Your task to perform on an android device: find which apps use the phone's location Image 0: 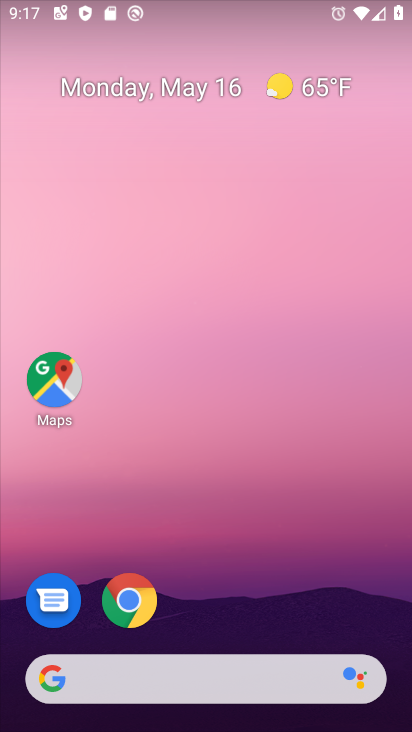
Step 0: drag from (212, 626) to (276, 214)
Your task to perform on an android device: find which apps use the phone's location Image 1: 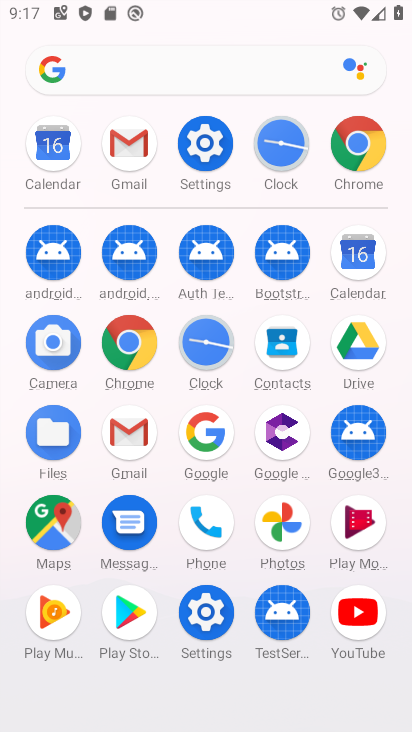
Step 1: click (218, 155)
Your task to perform on an android device: find which apps use the phone's location Image 2: 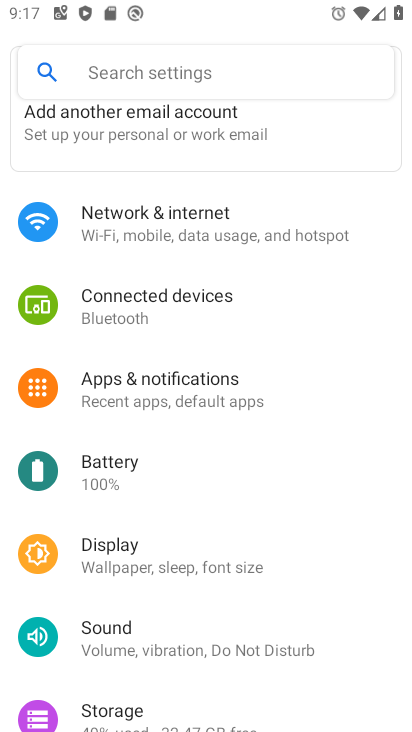
Step 2: click (157, 407)
Your task to perform on an android device: find which apps use the phone's location Image 3: 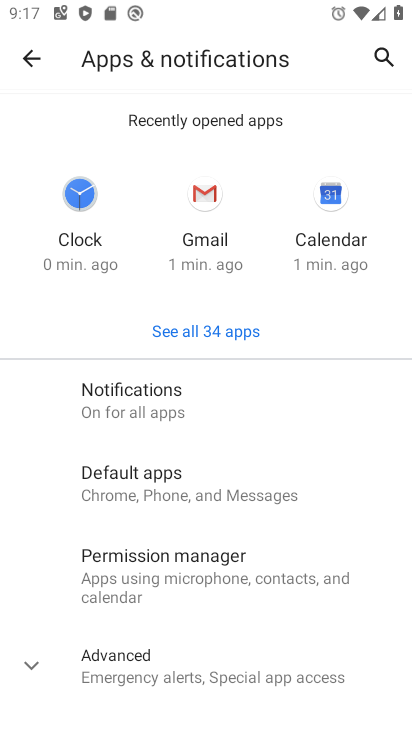
Step 3: click (171, 405)
Your task to perform on an android device: find which apps use the phone's location Image 4: 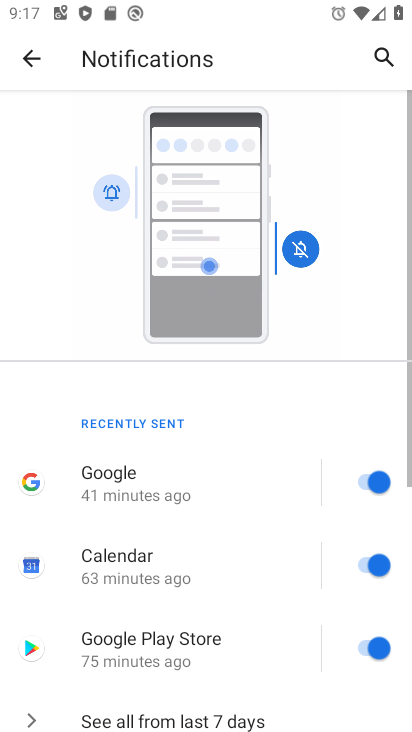
Step 4: drag from (201, 679) to (254, 283)
Your task to perform on an android device: find which apps use the phone's location Image 5: 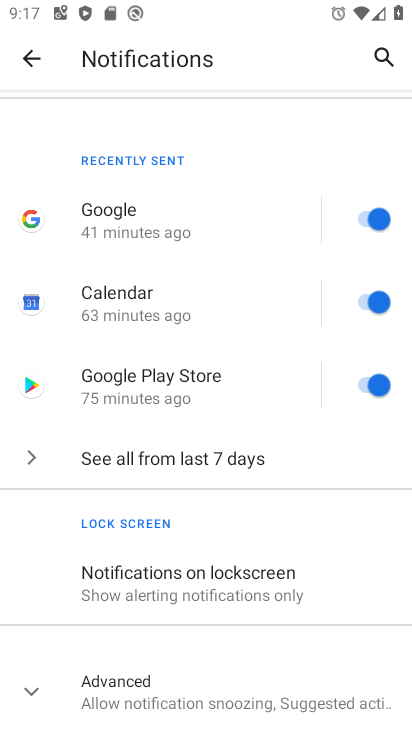
Step 5: click (37, 48)
Your task to perform on an android device: find which apps use the phone's location Image 6: 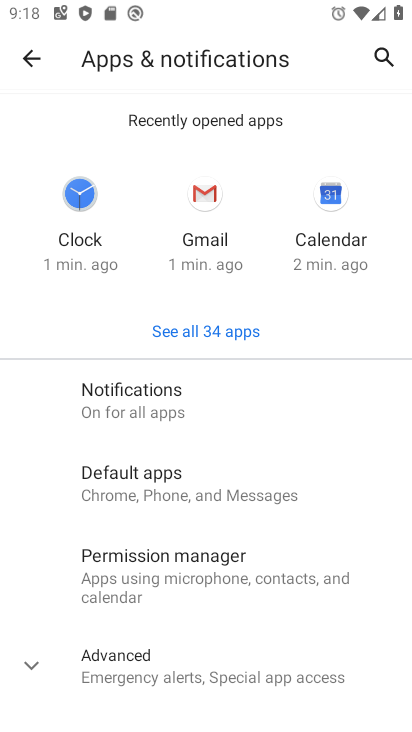
Step 6: drag from (303, 534) to (296, 191)
Your task to perform on an android device: find which apps use the phone's location Image 7: 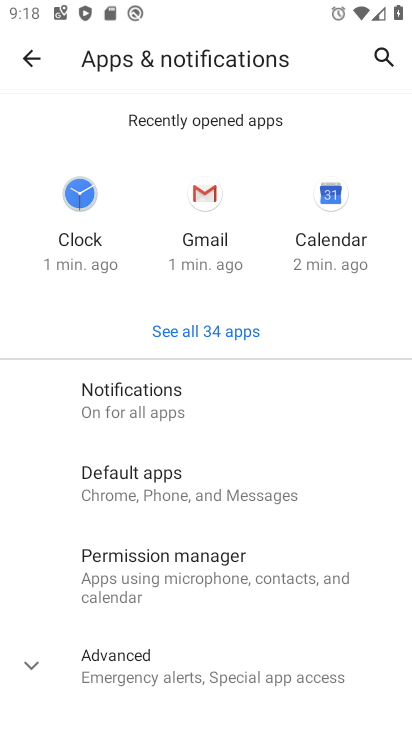
Step 7: click (145, 483)
Your task to perform on an android device: find which apps use the phone's location Image 8: 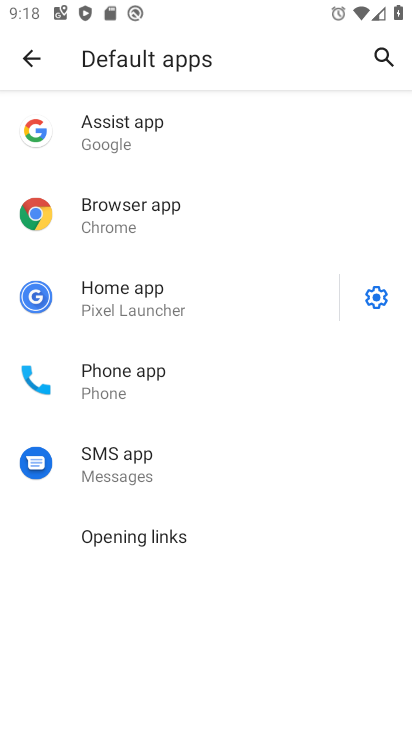
Step 8: task complete